Your task to perform on an android device: Go to Reddit.com Image 0: 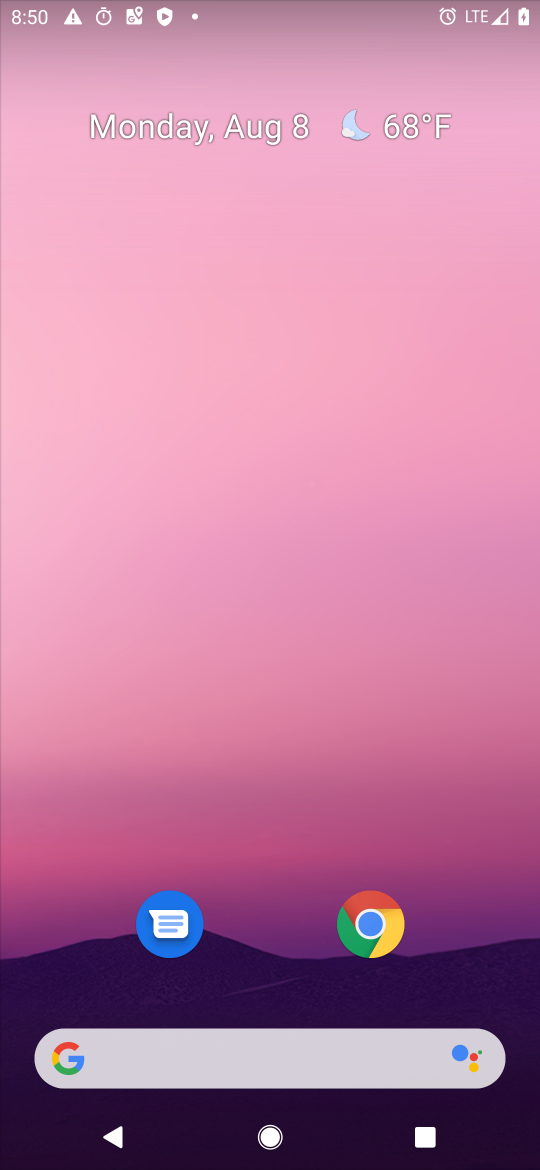
Step 0: drag from (207, 952) to (54, 128)
Your task to perform on an android device: Go to Reddit.com Image 1: 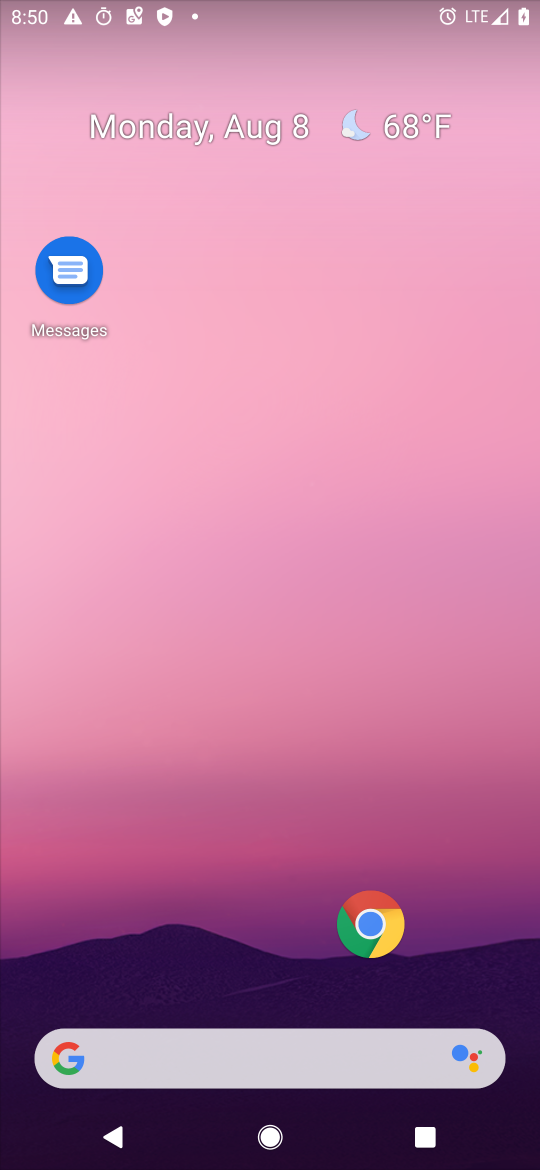
Step 1: drag from (257, 831) to (132, 35)
Your task to perform on an android device: Go to Reddit.com Image 2: 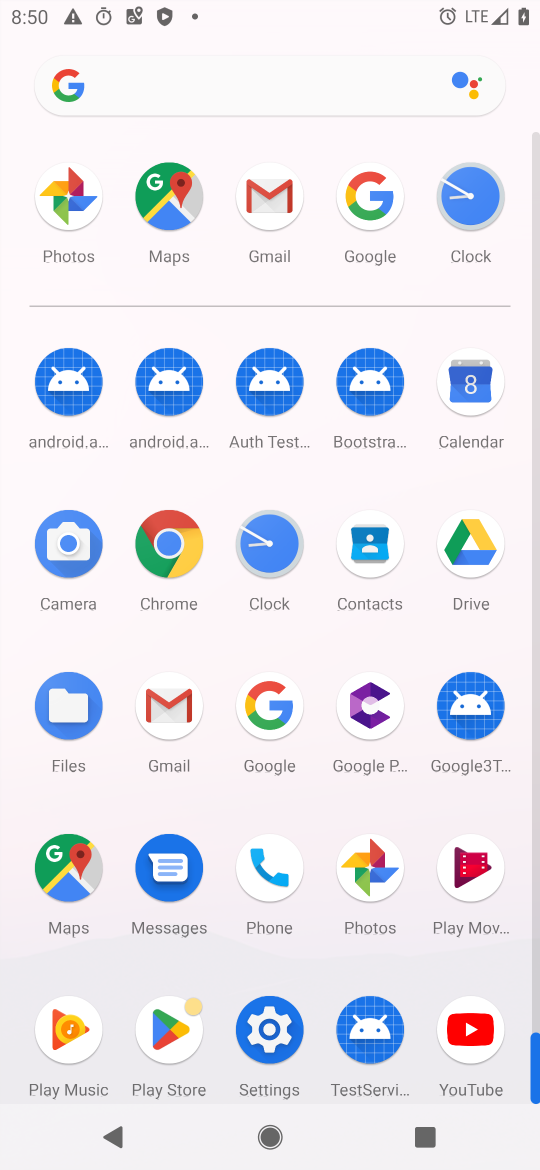
Step 2: drag from (301, 988) to (294, 394)
Your task to perform on an android device: Go to Reddit.com Image 3: 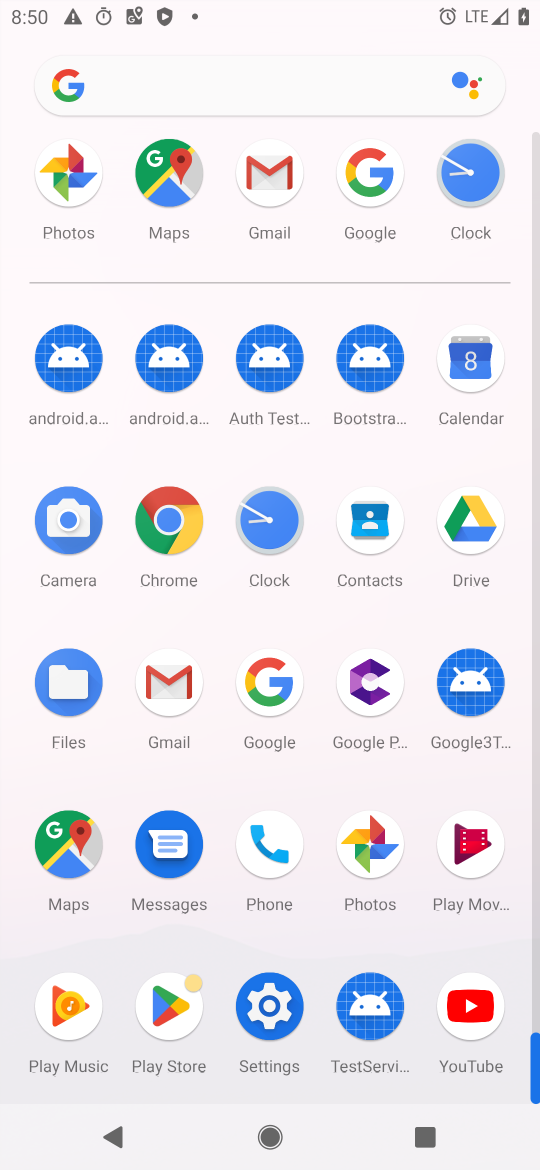
Step 3: click (178, 534)
Your task to perform on an android device: Go to Reddit.com Image 4: 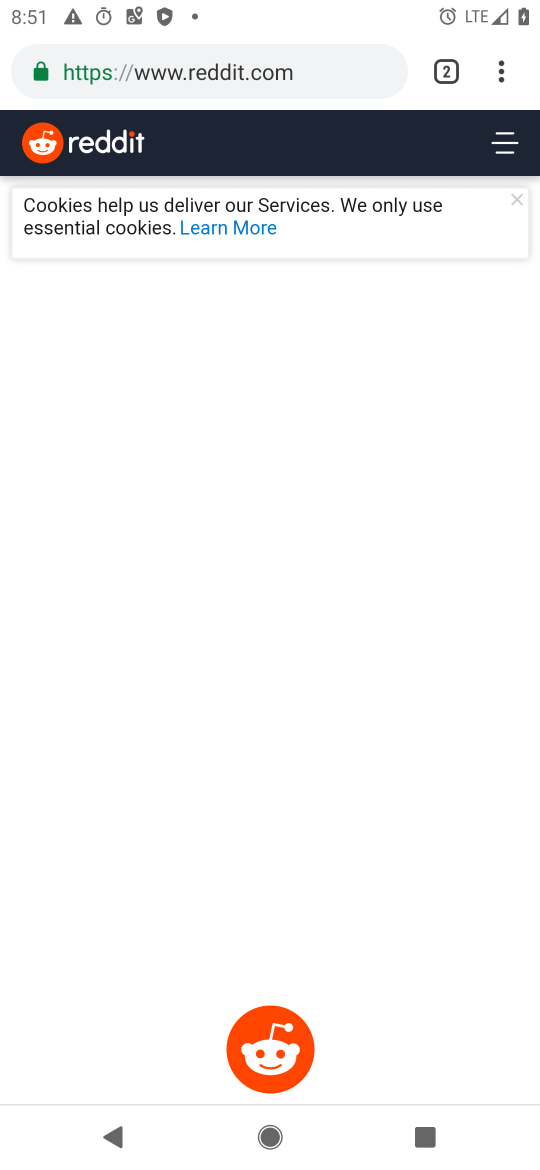
Step 4: task complete